Your task to perform on an android device: uninstall "Google Docs" Image 0: 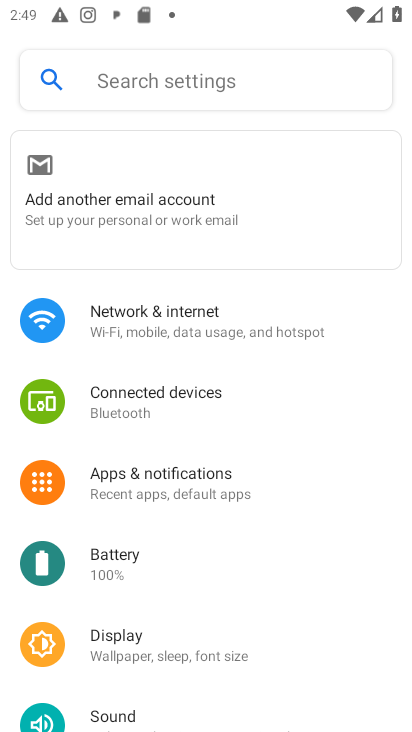
Step 0: press home button
Your task to perform on an android device: uninstall "Google Docs" Image 1: 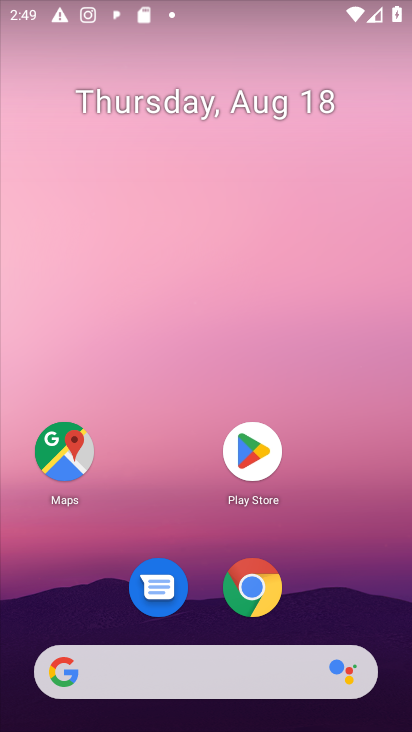
Step 1: click (252, 453)
Your task to perform on an android device: uninstall "Google Docs" Image 2: 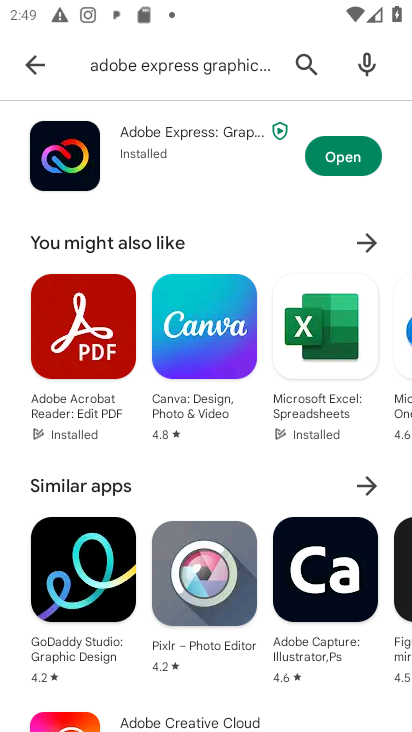
Step 2: click (307, 60)
Your task to perform on an android device: uninstall "Google Docs" Image 3: 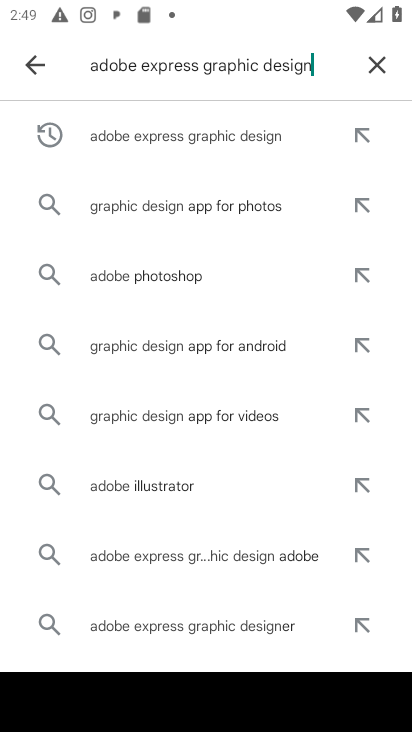
Step 3: click (376, 65)
Your task to perform on an android device: uninstall "Google Docs" Image 4: 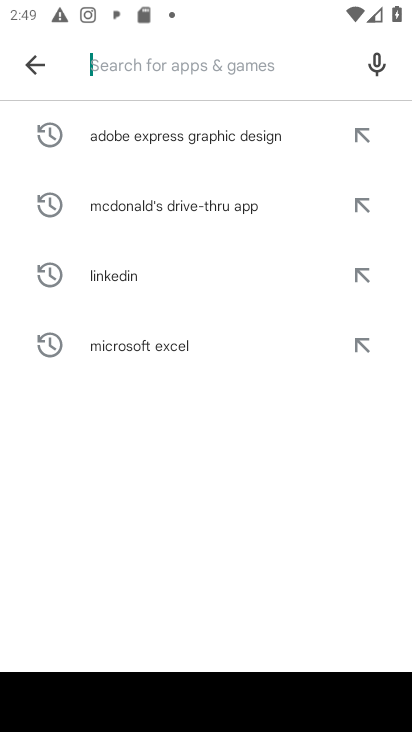
Step 4: type "Google Docs"
Your task to perform on an android device: uninstall "Google Docs" Image 5: 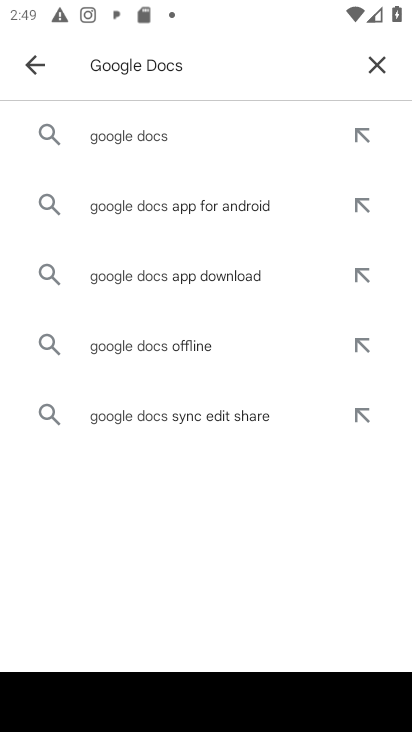
Step 5: click (130, 133)
Your task to perform on an android device: uninstall "Google Docs" Image 6: 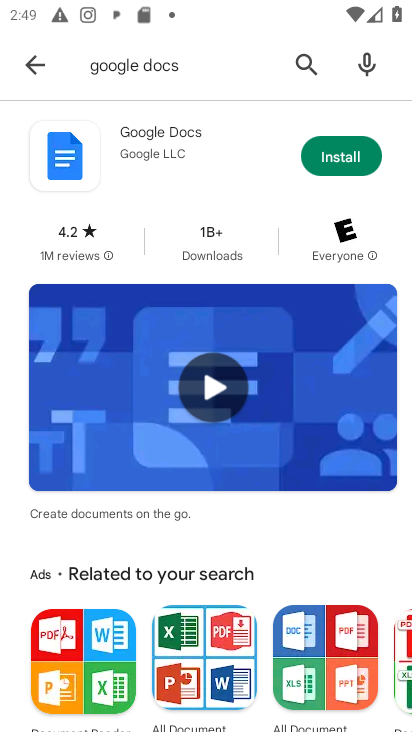
Step 6: task complete